Your task to perform on an android device: Open calendar and show me the second week of next month Image 0: 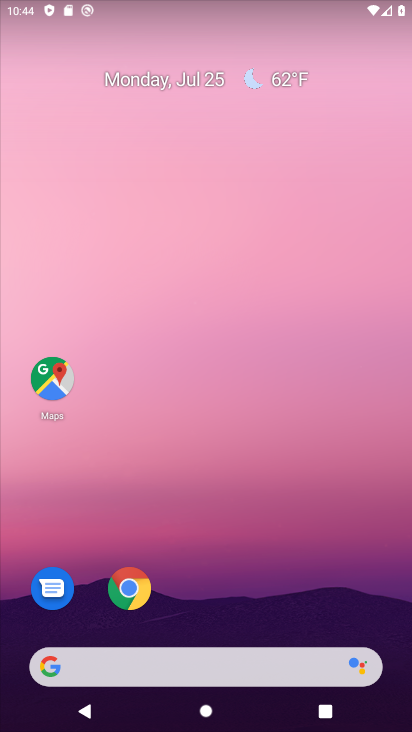
Step 0: drag from (146, 256) to (201, 105)
Your task to perform on an android device: Open calendar and show me the second week of next month Image 1: 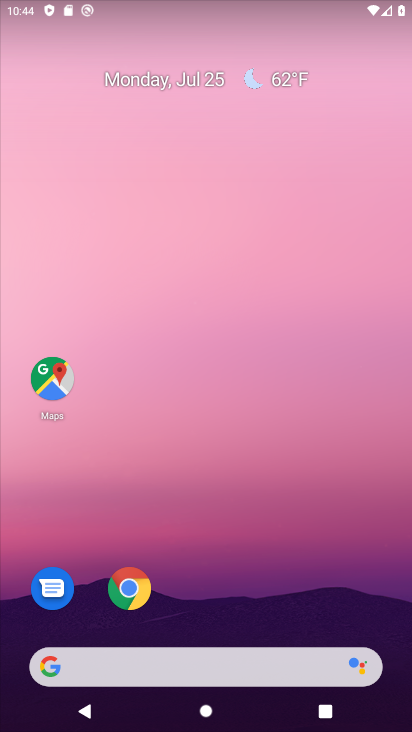
Step 1: drag from (39, 615) to (288, 49)
Your task to perform on an android device: Open calendar and show me the second week of next month Image 2: 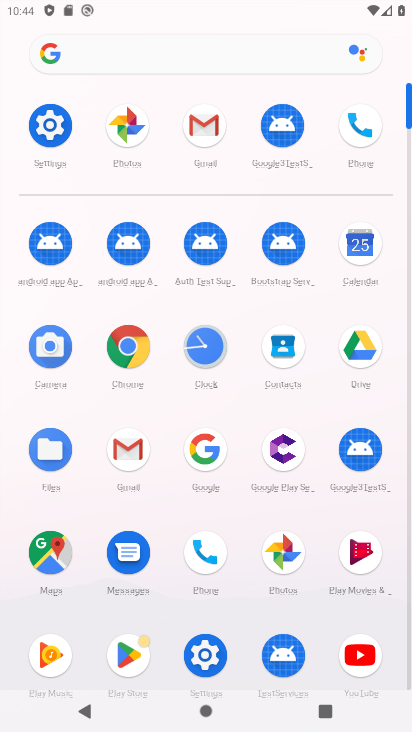
Step 2: click (357, 254)
Your task to perform on an android device: Open calendar and show me the second week of next month Image 3: 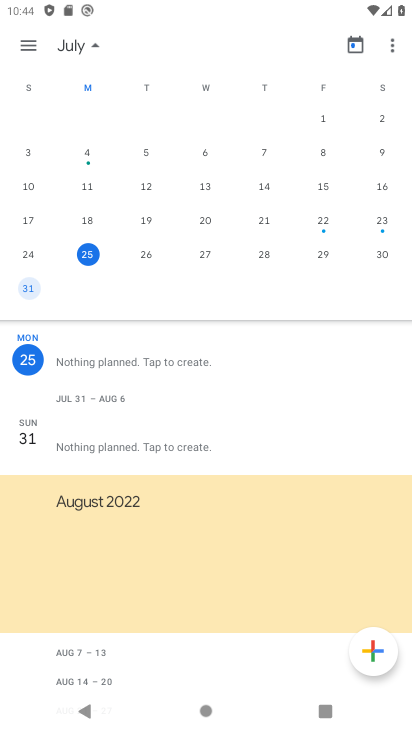
Step 3: drag from (411, 209) to (4, 224)
Your task to perform on an android device: Open calendar and show me the second week of next month Image 4: 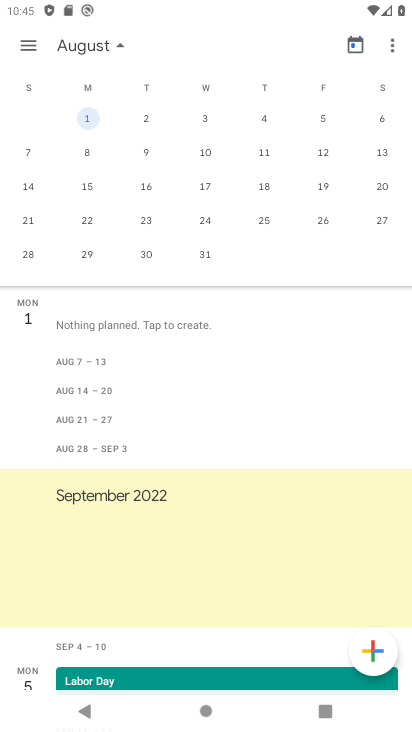
Step 4: click (85, 147)
Your task to perform on an android device: Open calendar and show me the second week of next month Image 5: 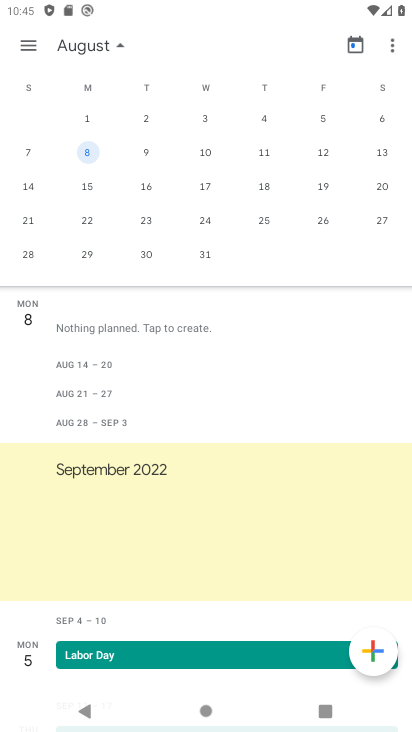
Step 5: click (305, 116)
Your task to perform on an android device: Open calendar and show me the second week of next month Image 6: 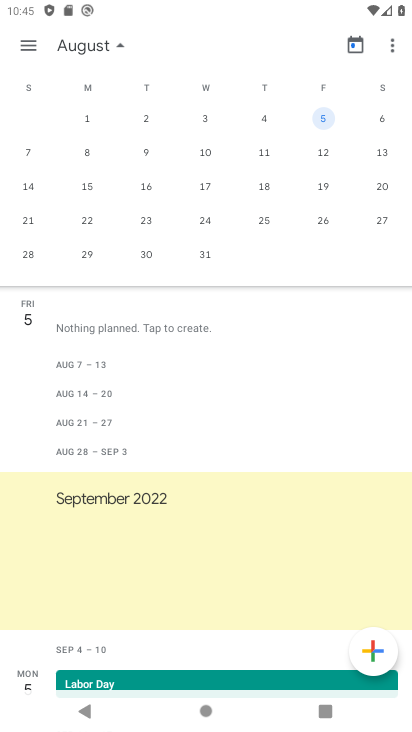
Step 6: click (383, 115)
Your task to perform on an android device: Open calendar and show me the second week of next month Image 7: 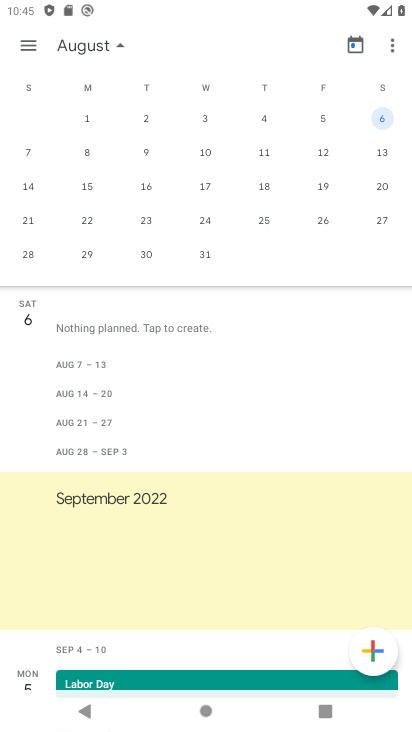
Step 7: task complete